Your task to perform on an android device: Open the Play Movies app and select the watchlist tab. Image 0: 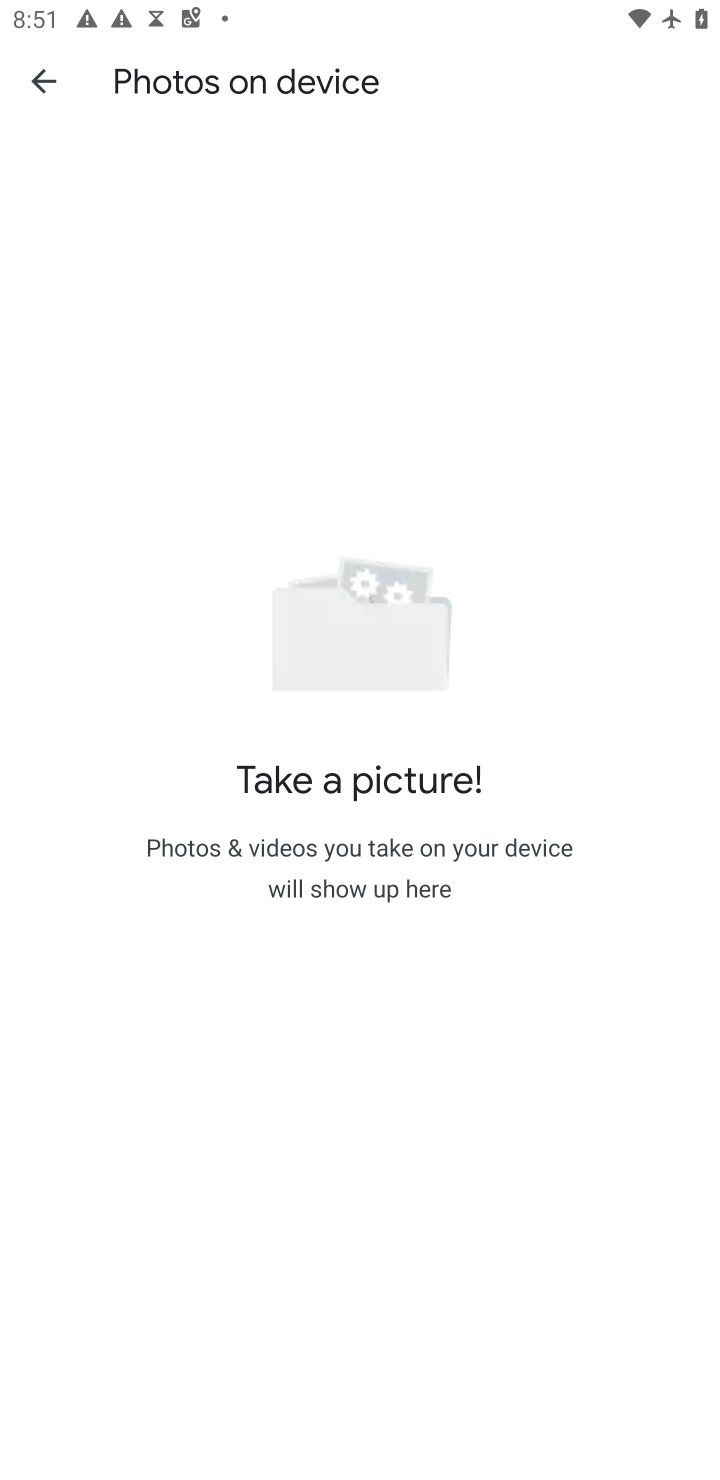
Step 0: press home button
Your task to perform on an android device: Open the Play Movies app and select the watchlist tab. Image 1: 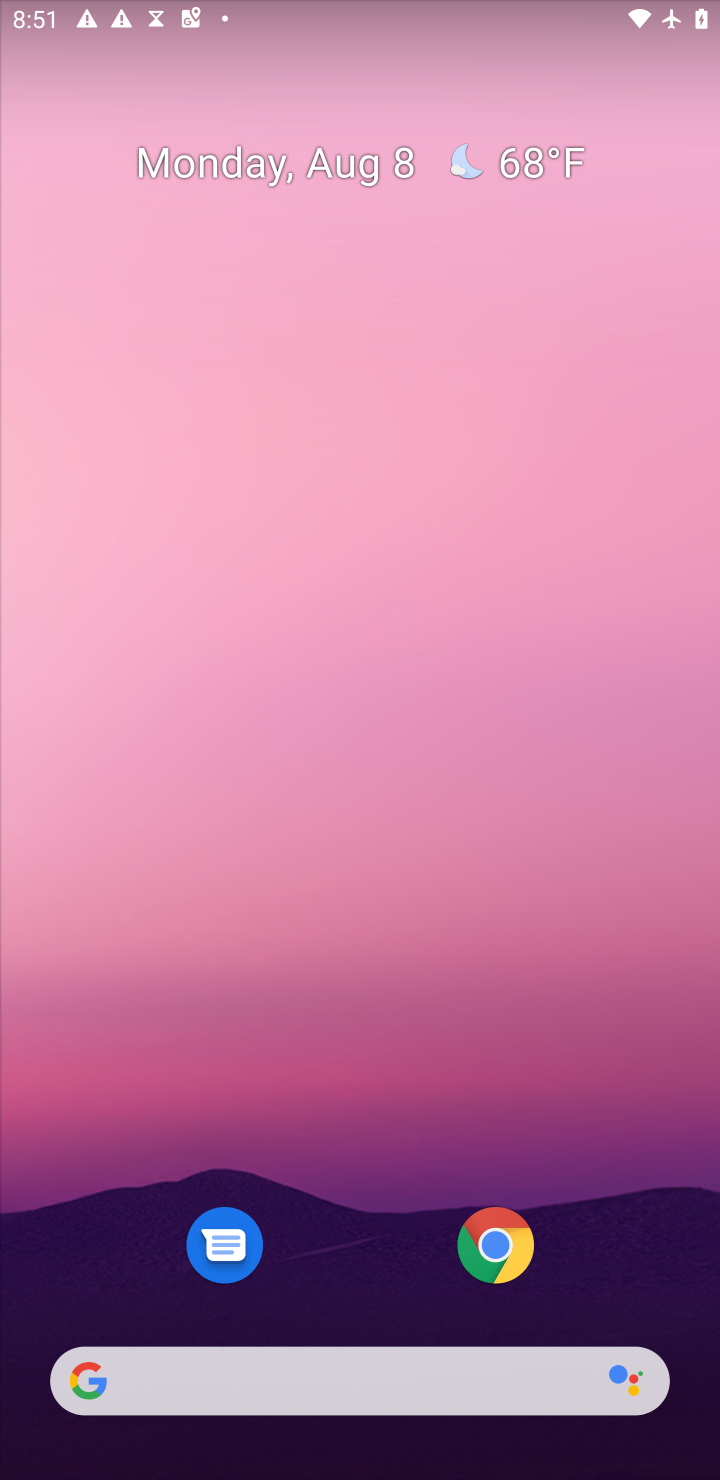
Step 1: drag from (314, 996) to (449, 0)
Your task to perform on an android device: Open the Play Movies app and select the watchlist tab. Image 2: 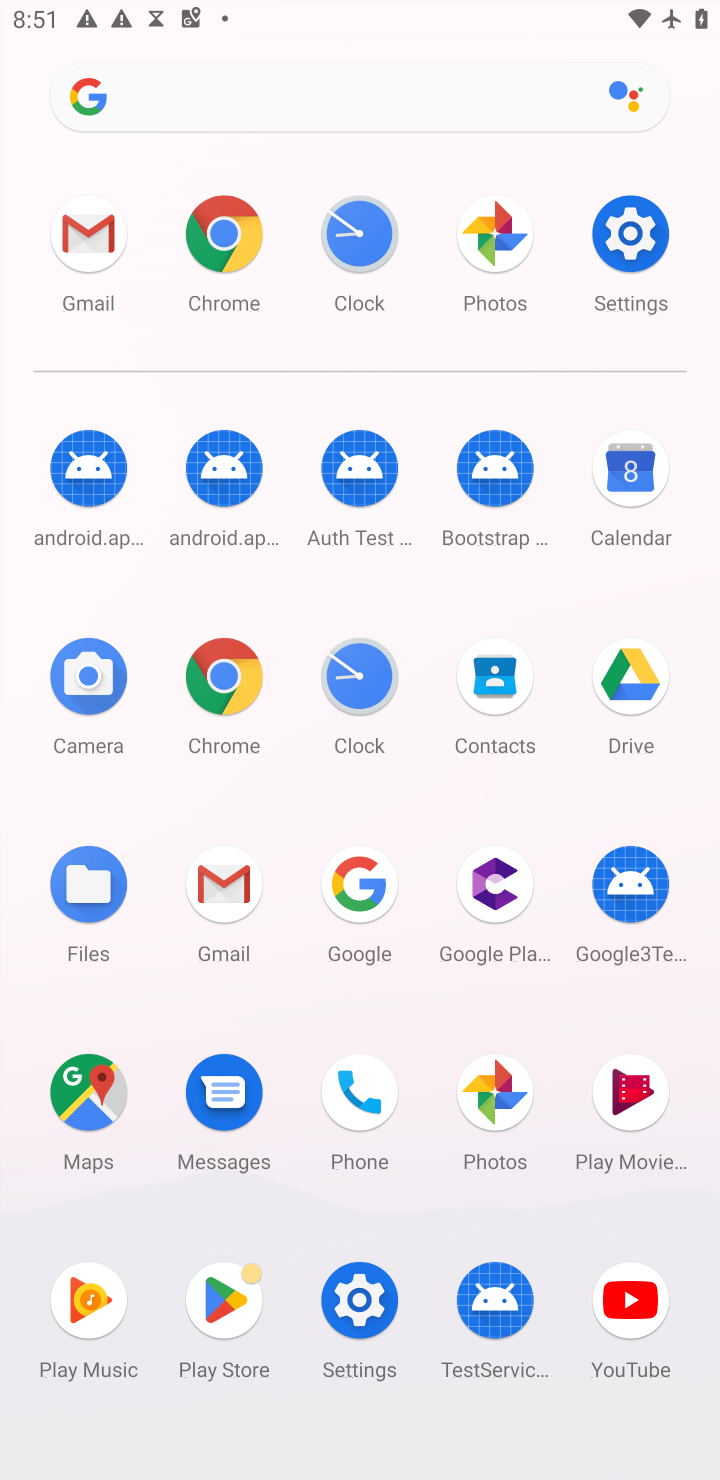
Step 2: click (649, 1083)
Your task to perform on an android device: Open the Play Movies app and select the watchlist tab. Image 3: 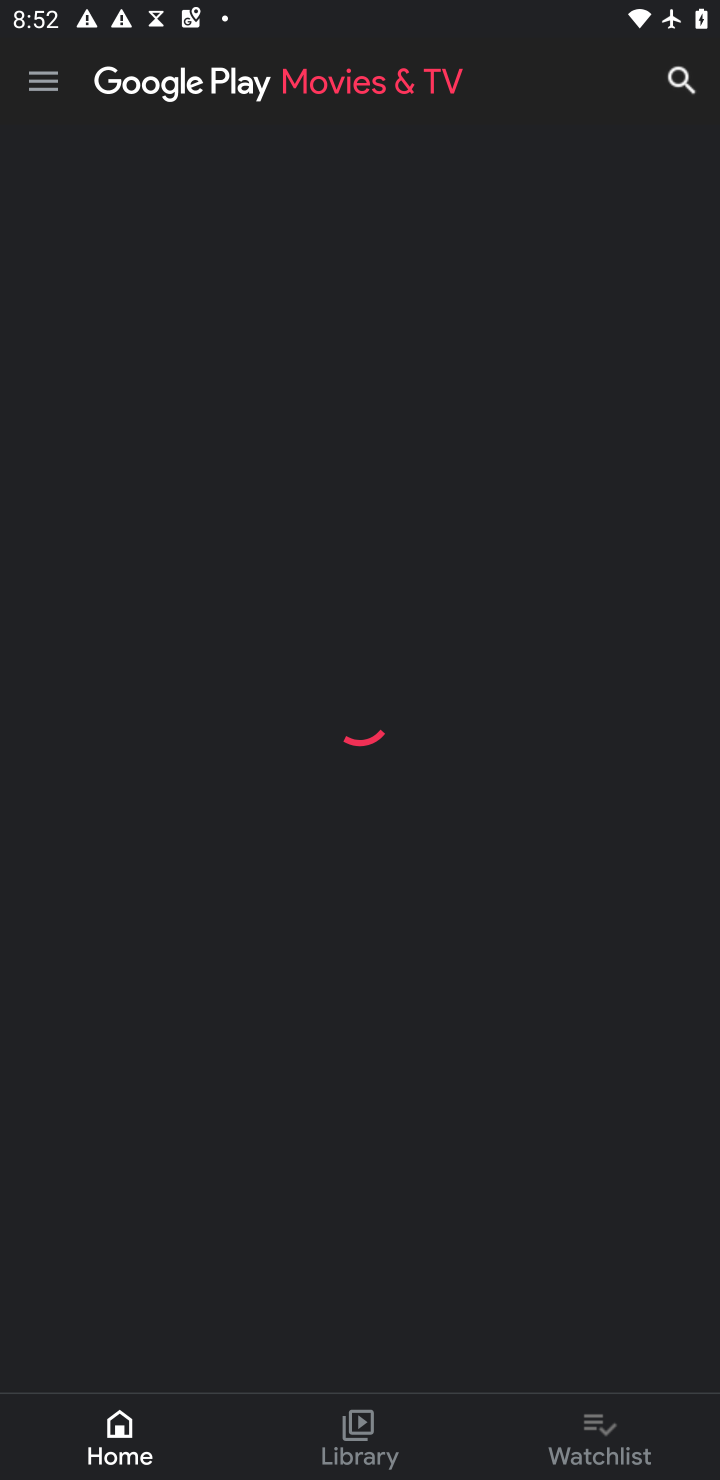
Step 3: click (590, 1444)
Your task to perform on an android device: Open the Play Movies app and select the watchlist tab. Image 4: 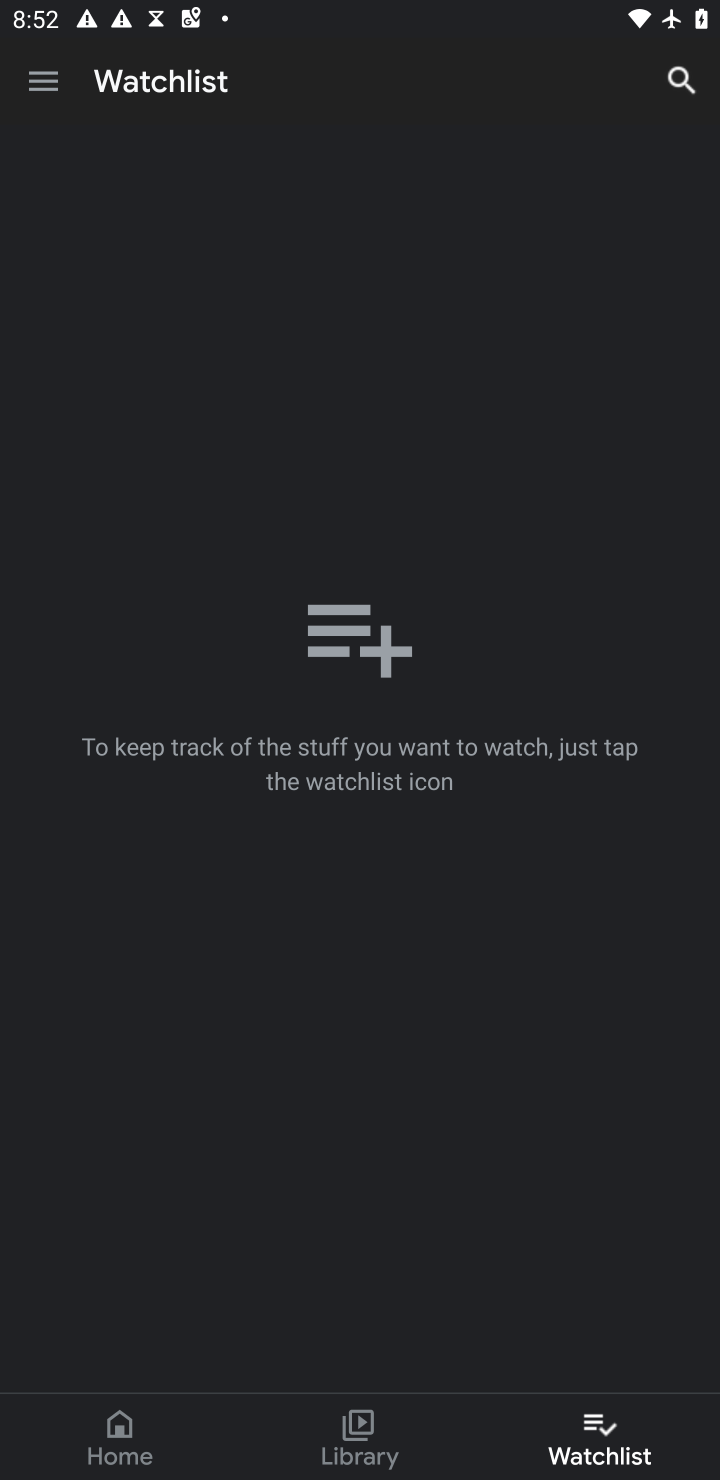
Step 4: task complete